Your task to perform on an android device: Open accessibility settings Image 0: 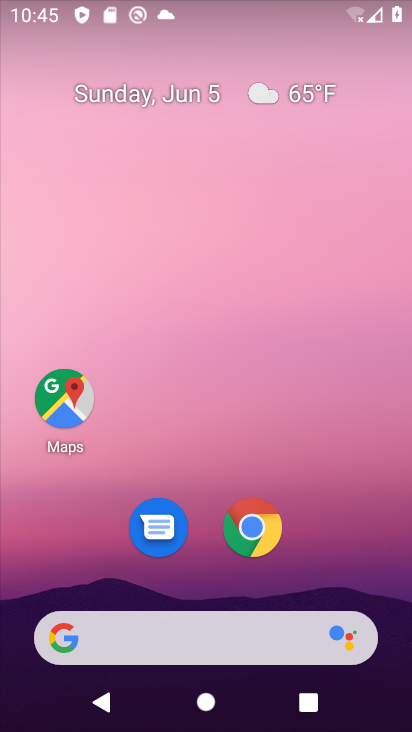
Step 0: drag from (329, 535) to (277, 0)
Your task to perform on an android device: Open accessibility settings Image 1: 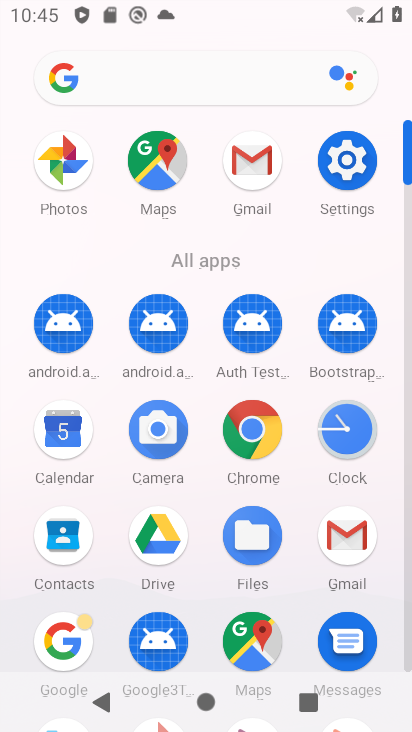
Step 1: click (350, 156)
Your task to perform on an android device: Open accessibility settings Image 2: 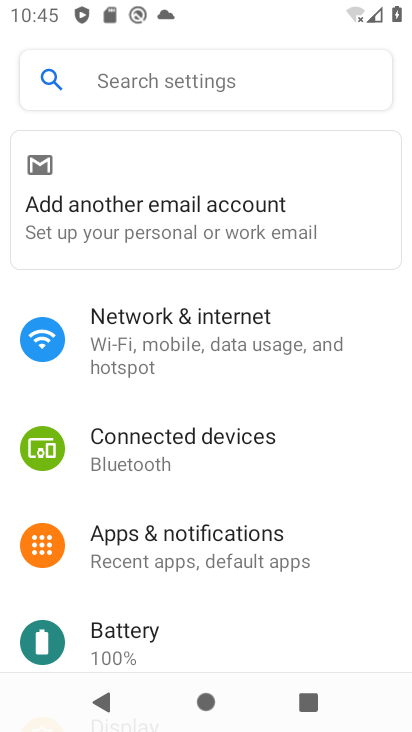
Step 2: drag from (272, 601) to (285, 221)
Your task to perform on an android device: Open accessibility settings Image 3: 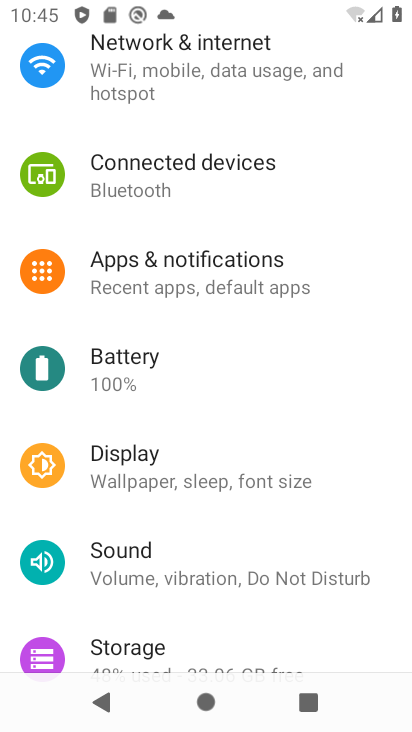
Step 3: drag from (254, 598) to (232, 114)
Your task to perform on an android device: Open accessibility settings Image 4: 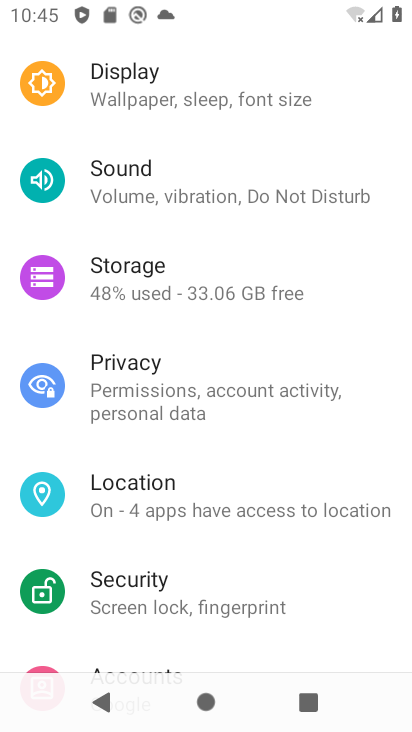
Step 4: drag from (248, 554) to (252, 115)
Your task to perform on an android device: Open accessibility settings Image 5: 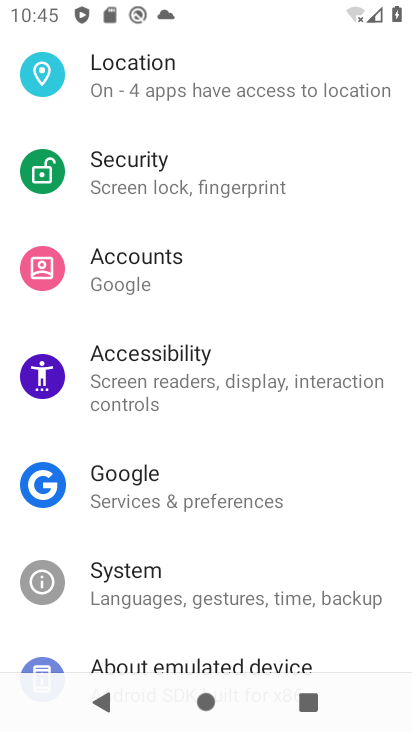
Step 5: click (219, 385)
Your task to perform on an android device: Open accessibility settings Image 6: 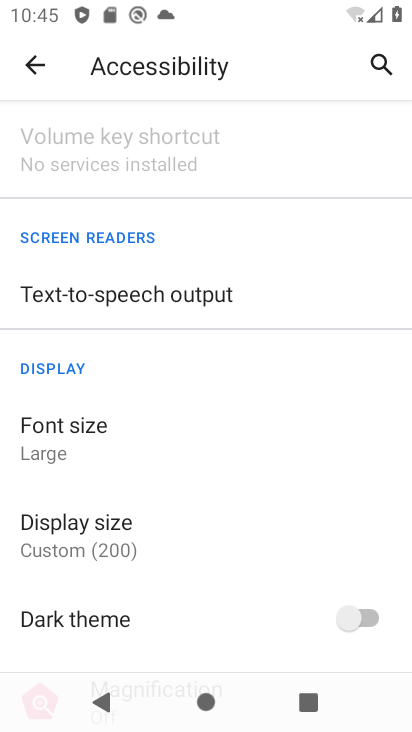
Step 6: task complete